Your task to perform on an android device: Open privacy settings Image 0: 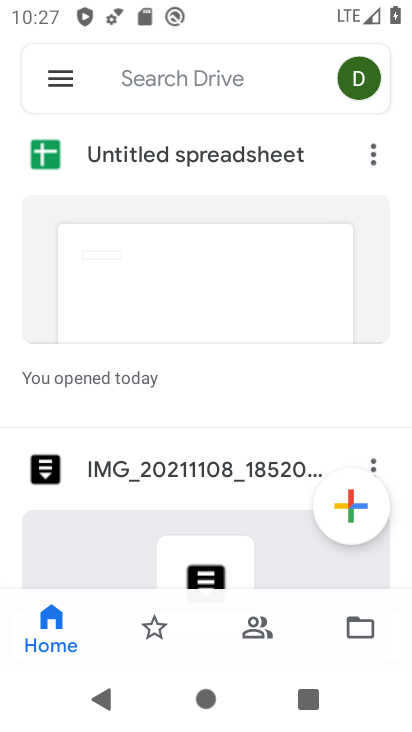
Step 0: press home button
Your task to perform on an android device: Open privacy settings Image 1: 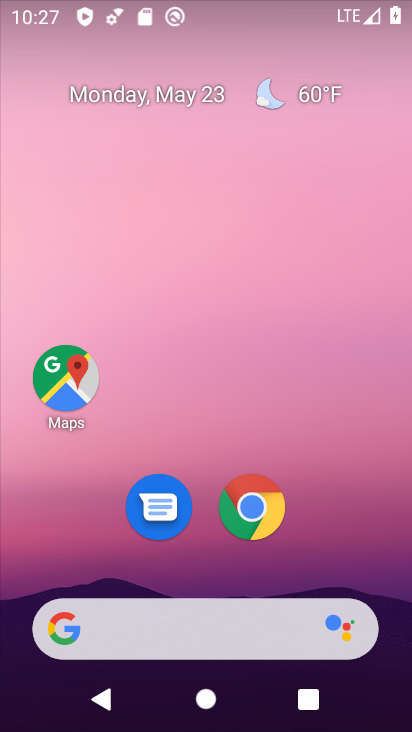
Step 1: drag from (319, 553) to (251, 32)
Your task to perform on an android device: Open privacy settings Image 2: 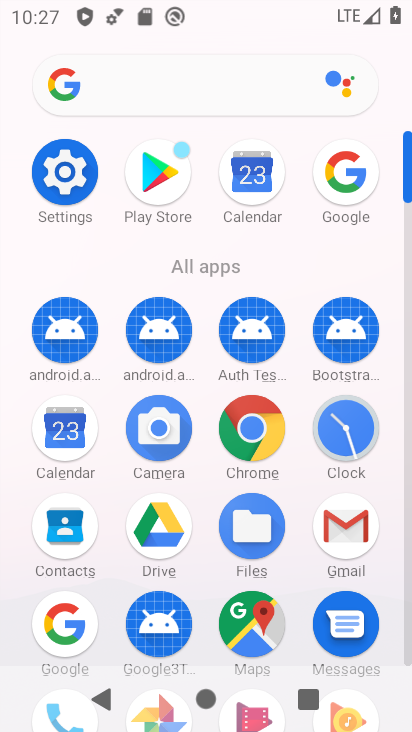
Step 2: click (69, 171)
Your task to perform on an android device: Open privacy settings Image 3: 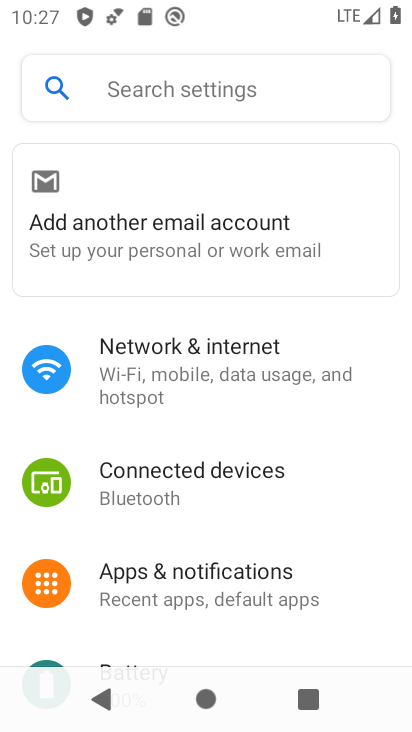
Step 3: drag from (215, 531) to (250, 392)
Your task to perform on an android device: Open privacy settings Image 4: 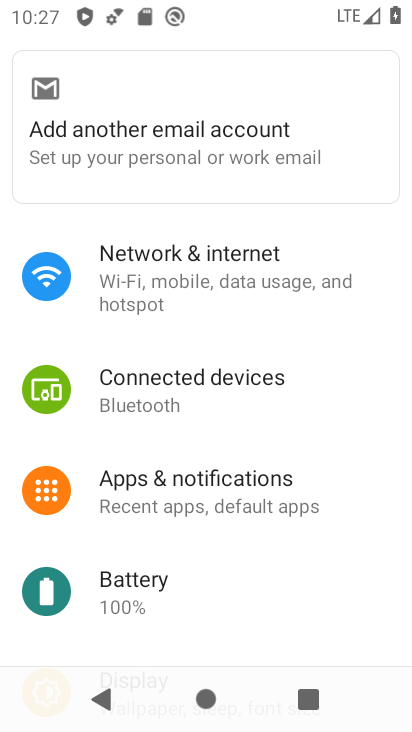
Step 4: drag from (236, 538) to (275, 425)
Your task to perform on an android device: Open privacy settings Image 5: 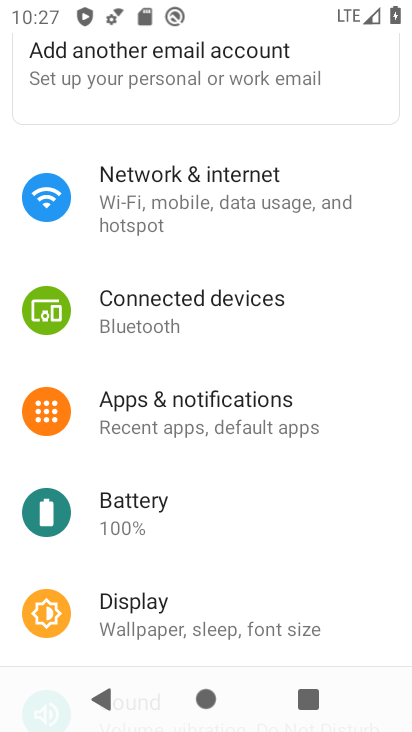
Step 5: drag from (186, 558) to (248, 367)
Your task to perform on an android device: Open privacy settings Image 6: 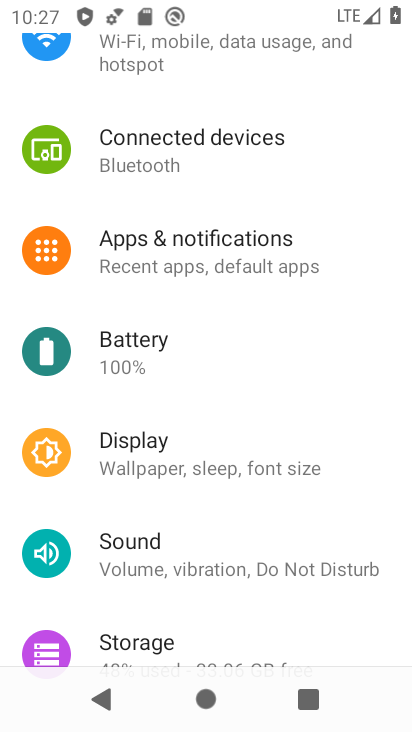
Step 6: drag from (204, 518) to (264, 393)
Your task to perform on an android device: Open privacy settings Image 7: 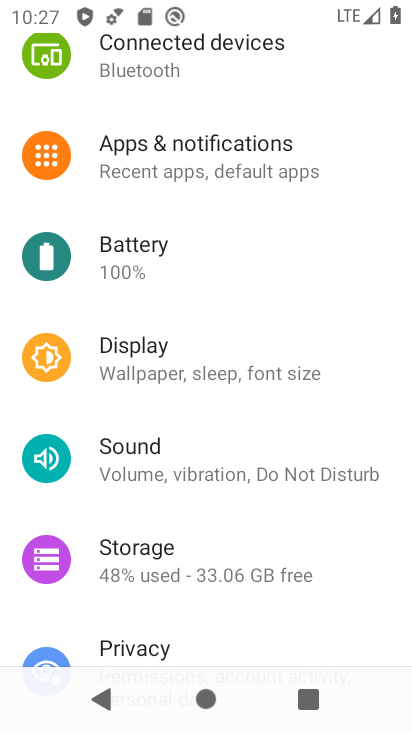
Step 7: drag from (166, 604) to (251, 390)
Your task to perform on an android device: Open privacy settings Image 8: 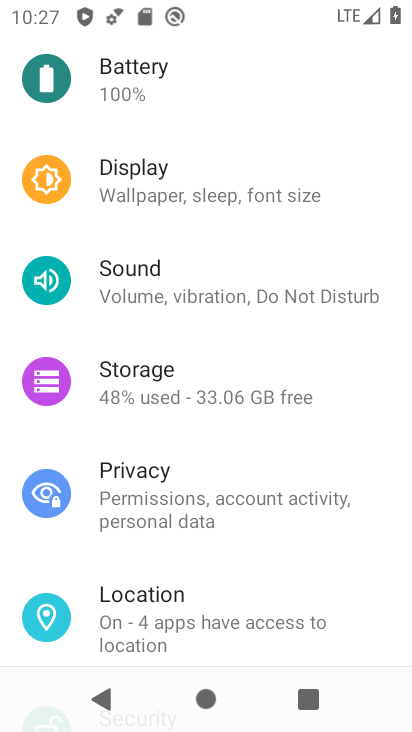
Step 8: click (171, 492)
Your task to perform on an android device: Open privacy settings Image 9: 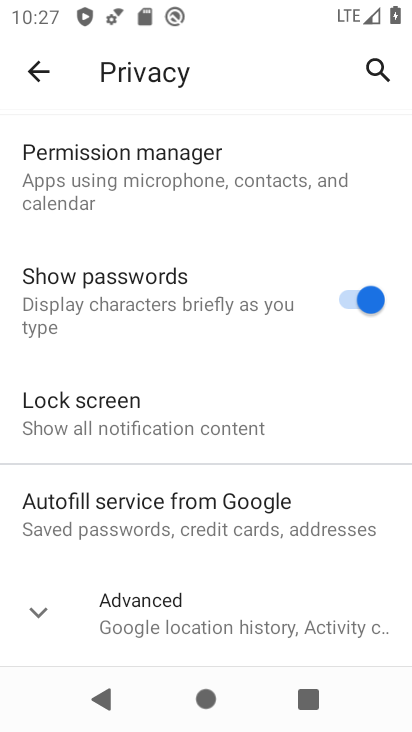
Step 9: task complete